Your task to perform on an android device: Open calendar and show me the first week of next month Image 0: 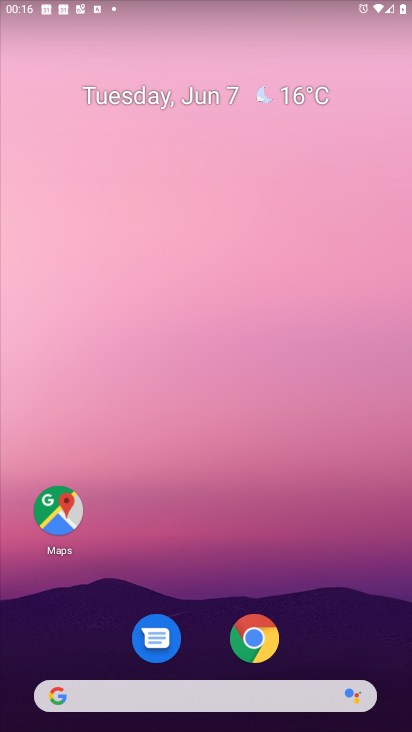
Step 0: drag from (226, 678) to (157, 216)
Your task to perform on an android device: Open calendar and show me the first week of next month Image 1: 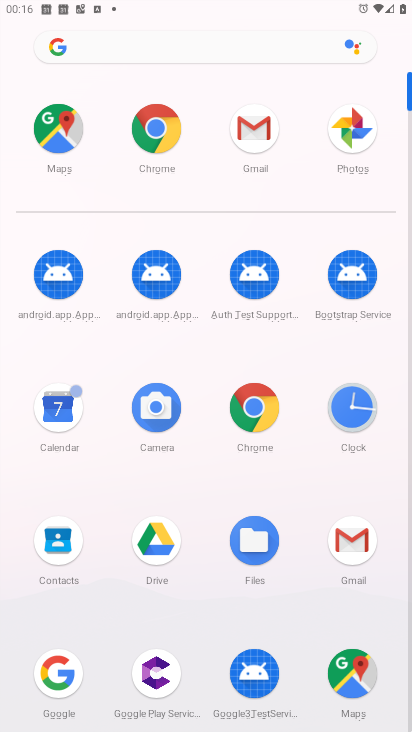
Step 1: click (57, 422)
Your task to perform on an android device: Open calendar and show me the first week of next month Image 2: 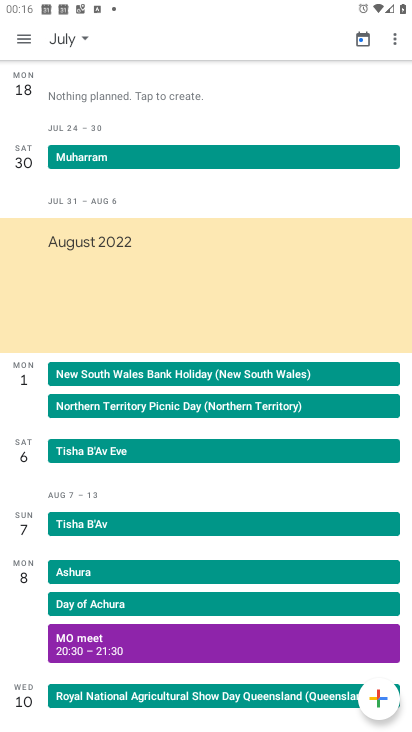
Step 2: click (27, 41)
Your task to perform on an android device: Open calendar and show me the first week of next month Image 3: 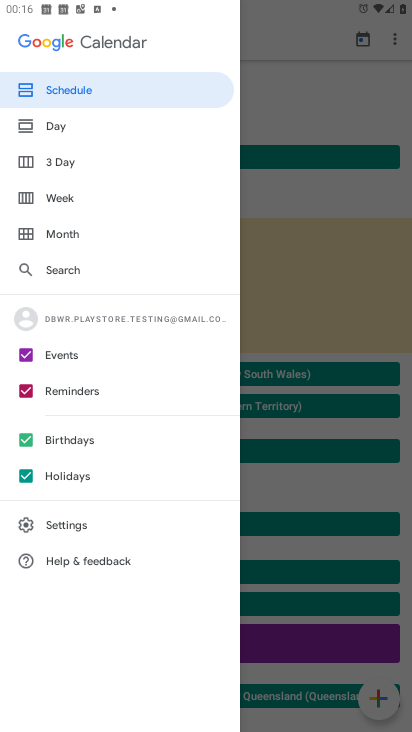
Step 3: click (71, 239)
Your task to perform on an android device: Open calendar and show me the first week of next month Image 4: 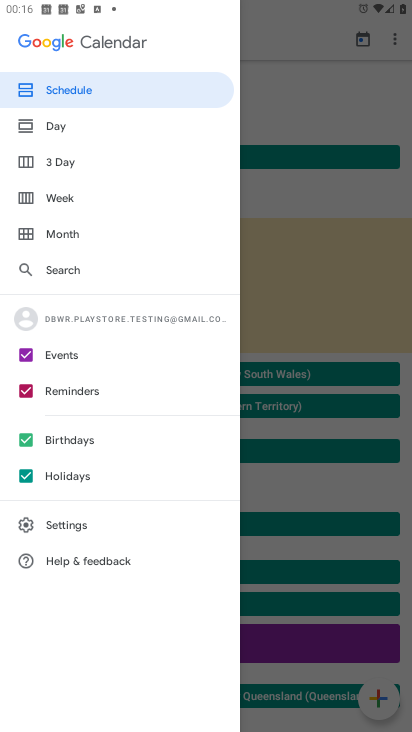
Step 4: click (68, 237)
Your task to perform on an android device: Open calendar and show me the first week of next month Image 5: 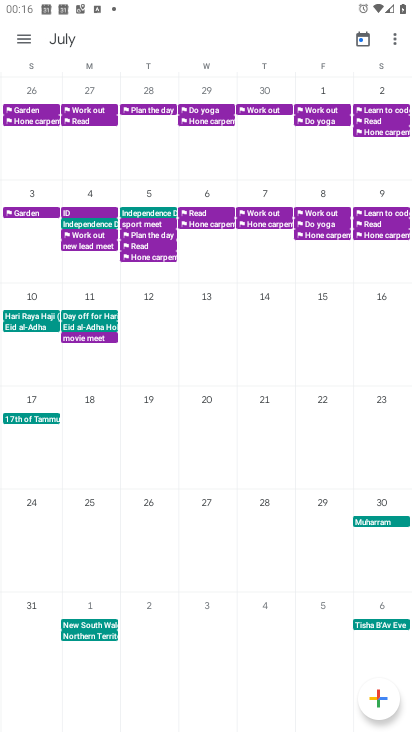
Step 5: click (100, 190)
Your task to perform on an android device: Open calendar and show me the first week of next month Image 6: 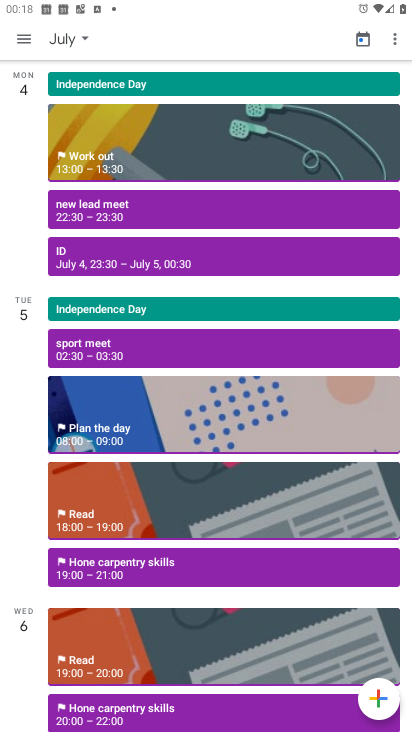
Step 6: task complete